Your task to perform on an android device: Open my contact list Image 0: 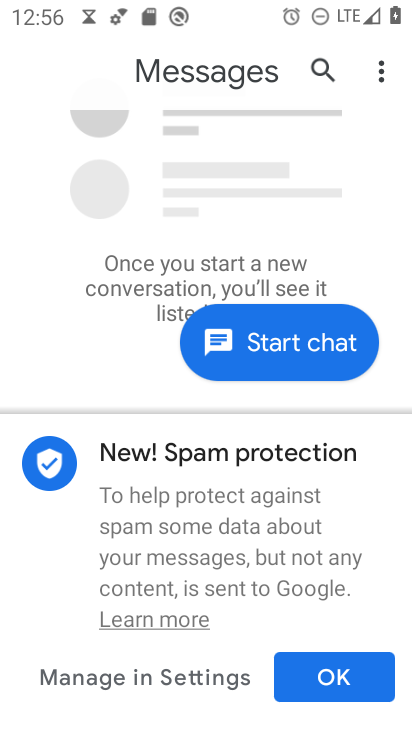
Step 0: press home button
Your task to perform on an android device: Open my contact list Image 1: 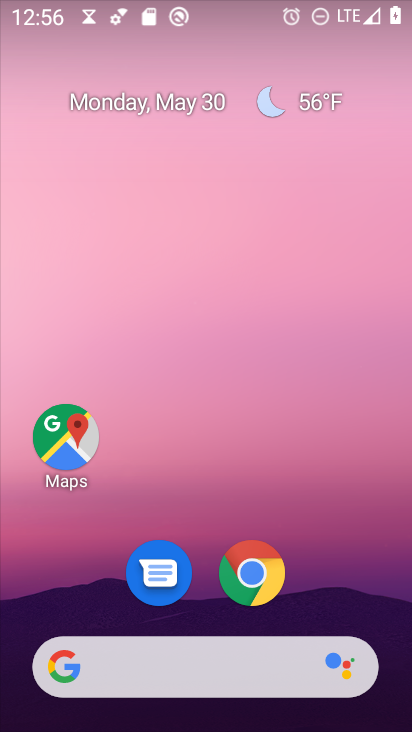
Step 1: drag from (249, 656) to (233, 30)
Your task to perform on an android device: Open my contact list Image 2: 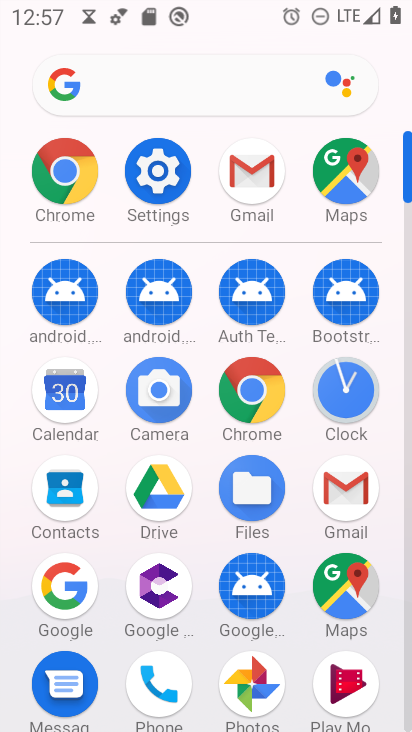
Step 2: click (79, 498)
Your task to perform on an android device: Open my contact list Image 3: 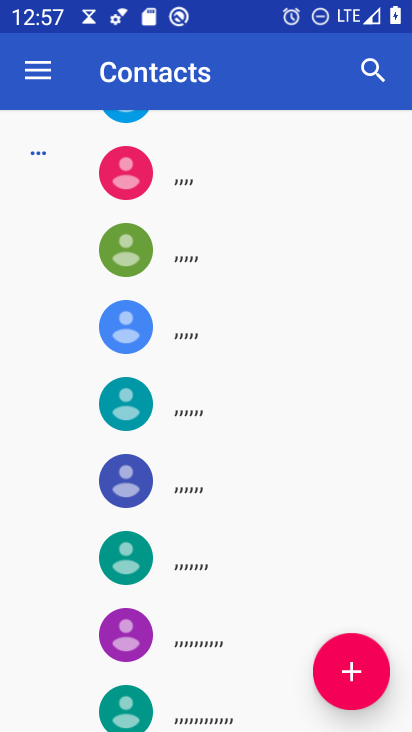
Step 3: task complete